Your task to perform on an android device: manage bookmarks in the chrome app Image 0: 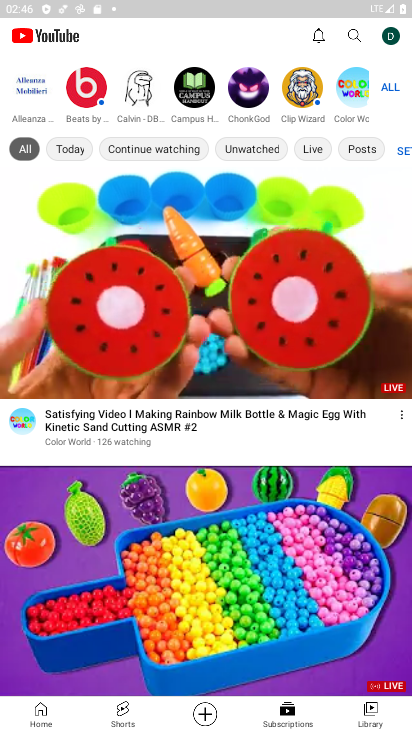
Step 0: press home button
Your task to perform on an android device: manage bookmarks in the chrome app Image 1: 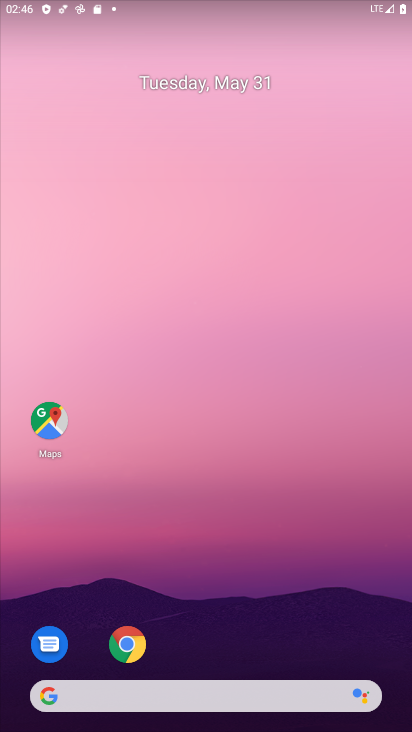
Step 1: click (130, 644)
Your task to perform on an android device: manage bookmarks in the chrome app Image 2: 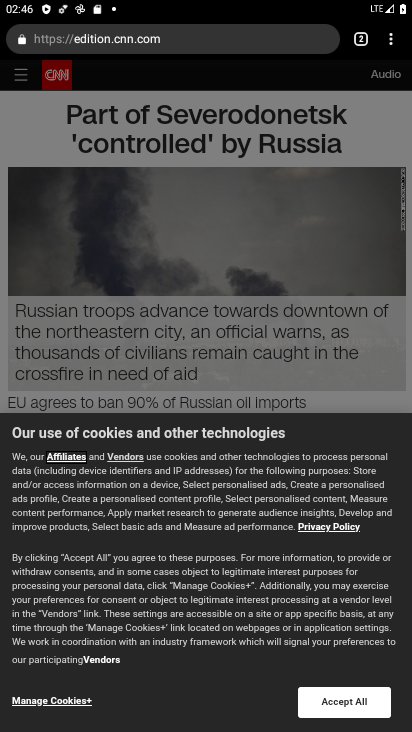
Step 2: task complete